Your task to perform on an android device: turn off sleep mode Image 0: 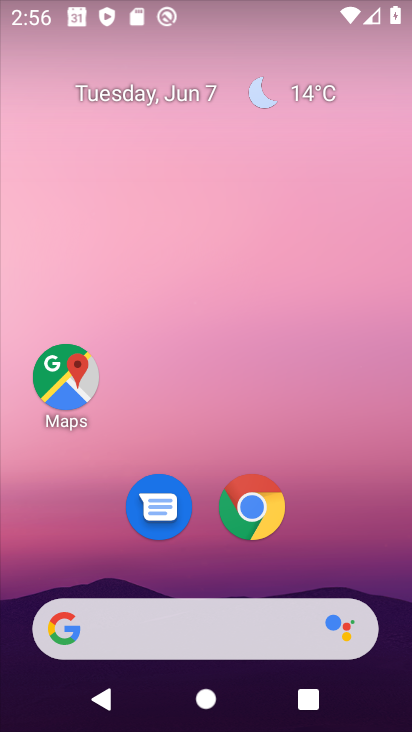
Step 0: drag from (372, 282) to (393, 78)
Your task to perform on an android device: turn off sleep mode Image 1: 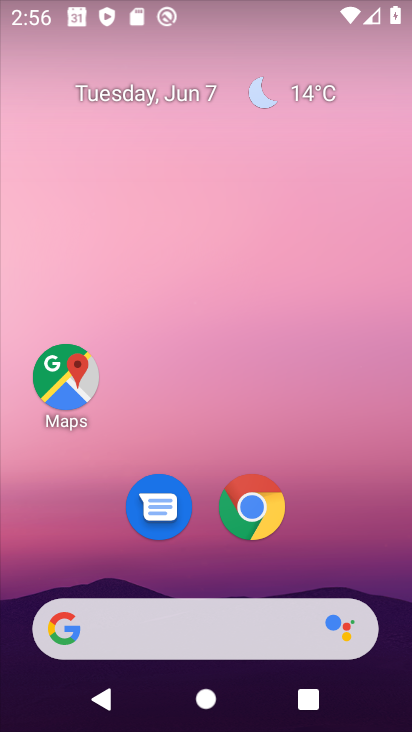
Step 1: drag from (342, 467) to (383, 113)
Your task to perform on an android device: turn off sleep mode Image 2: 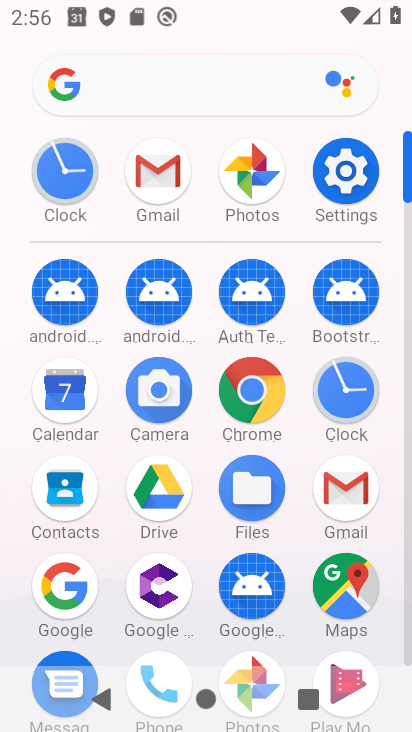
Step 2: click (334, 176)
Your task to perform on an android device: turn off sleep mode Image 3: 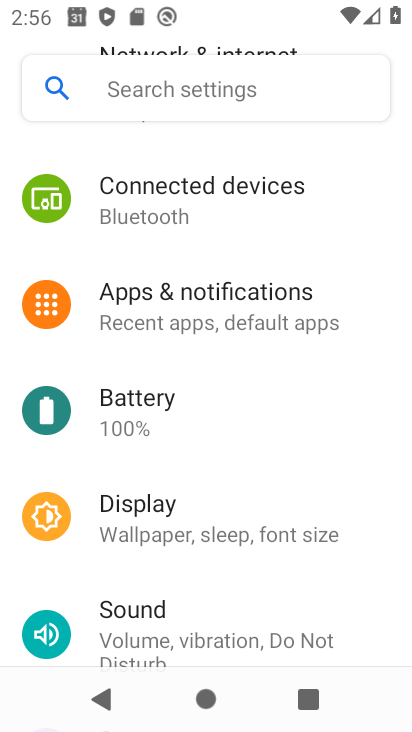
Step 3: drag from (234, 145) to (199, 543)
Your task to perform on an android device: turn off sleep mode Image 4: 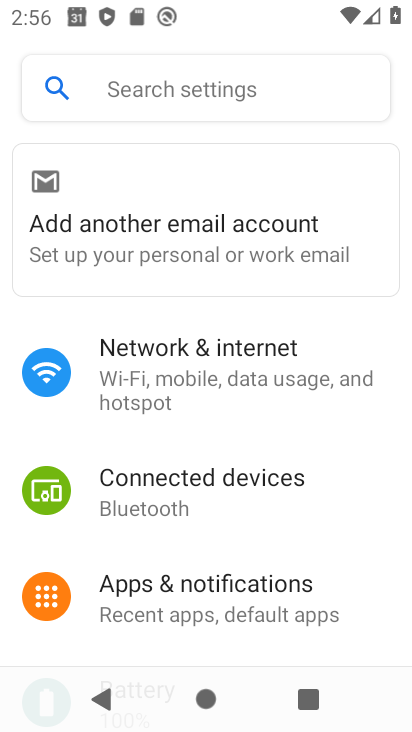
Step 4: drag from (218, 543) to (265, 145)
Your task to perform on an android device: turn off sleep mode Image 5: 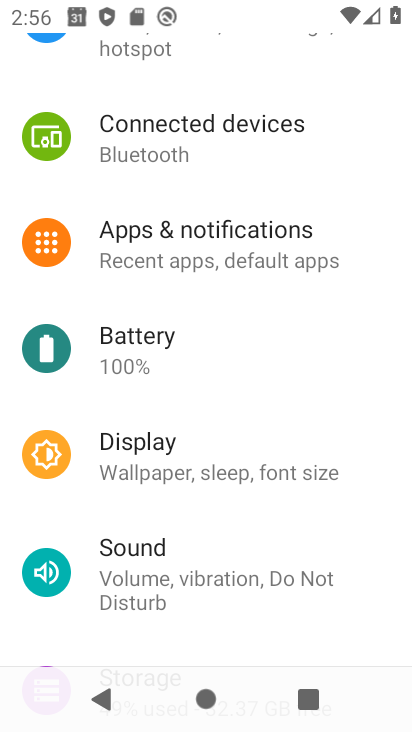
Step 5: drag from (248, 600) to (331, 163)
Your task to perform on an android device: turn off sleep mode Image 6: 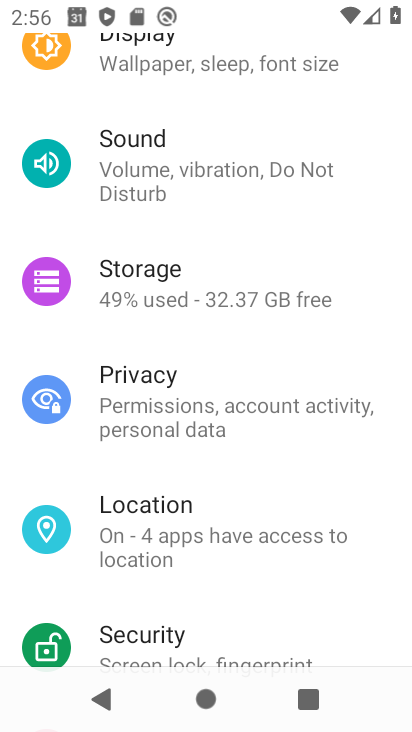
Step 6: drag from (230, 161) to (216, 511)
Your task to perform on an android device: turn off sleep mode Image 7: 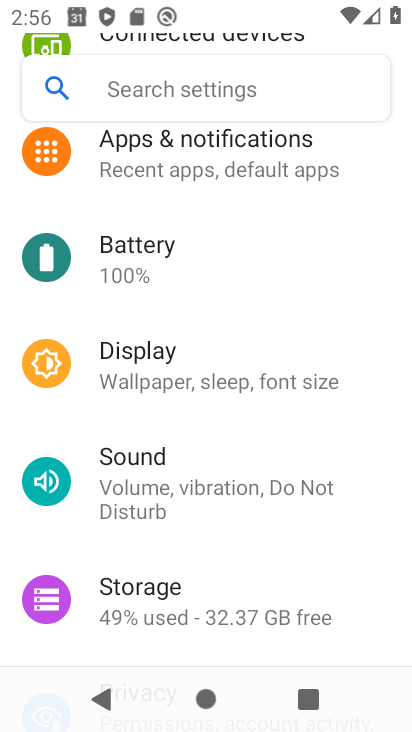
Step 7: click (198, 376)
Your task to perform on an android device: turn off sleep mode Image 8: 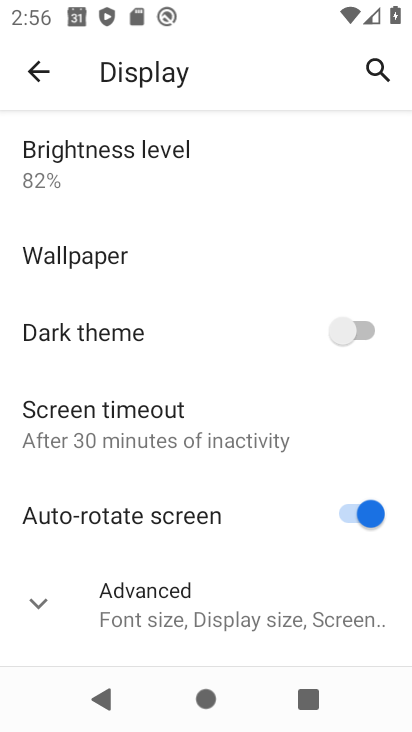
Step 8: click (197, 446)
Your task to perform on an android device: turn off sleep mode Image 9: 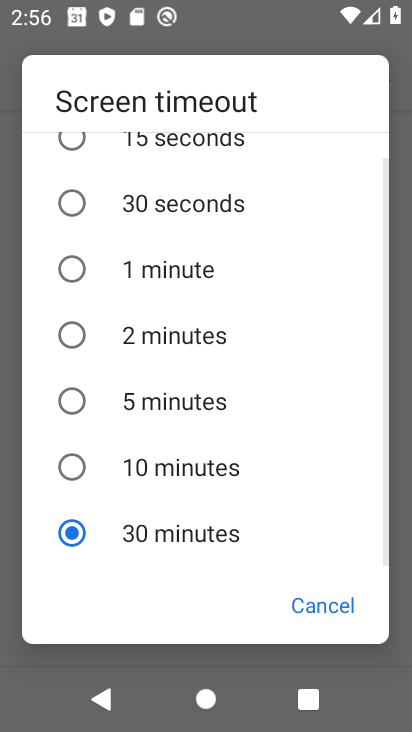
Step 9: task complete